Your task to perform on an android device: Go to CNN.com Image 0: 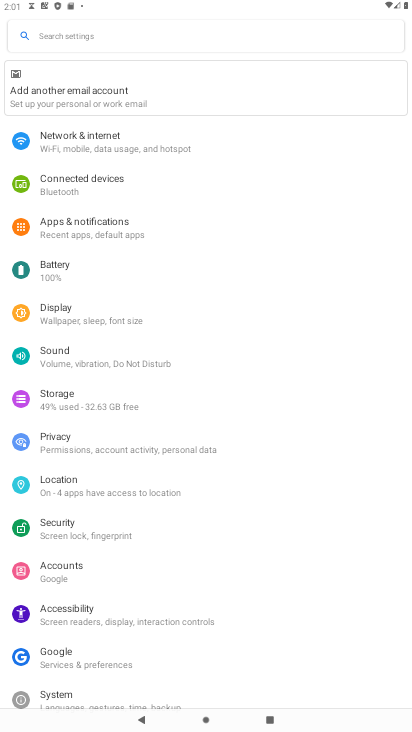
Step 0: press home button
Your task to perform on an android device: Go to CNN.com Image 1: 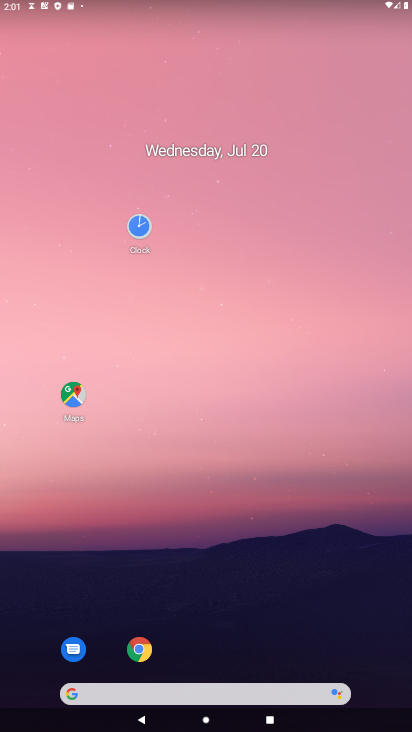
Step 1: click (130, 651)
Your task to perform on an android device: Go to CNN.com Image 2: 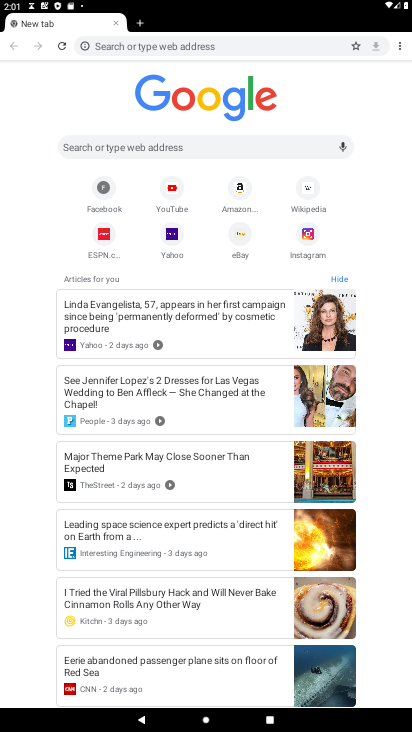
Step 2: click (159, 147)
Your task to perform on an android device: Go to CNN.com Image 3: 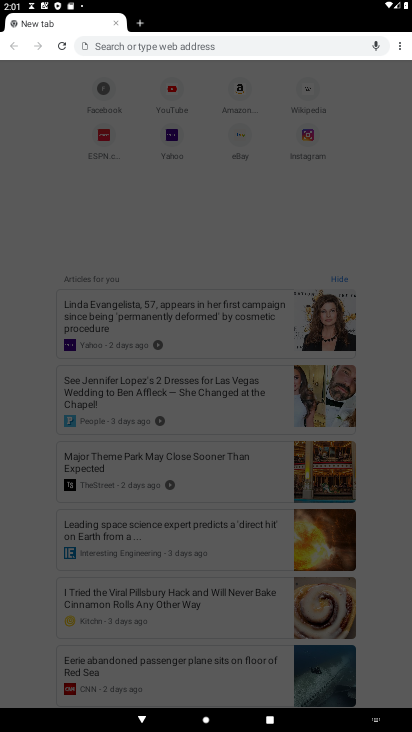
Step 3: type "cnn"
Your task to perform on an android device: Go to CNN.com Image 4: 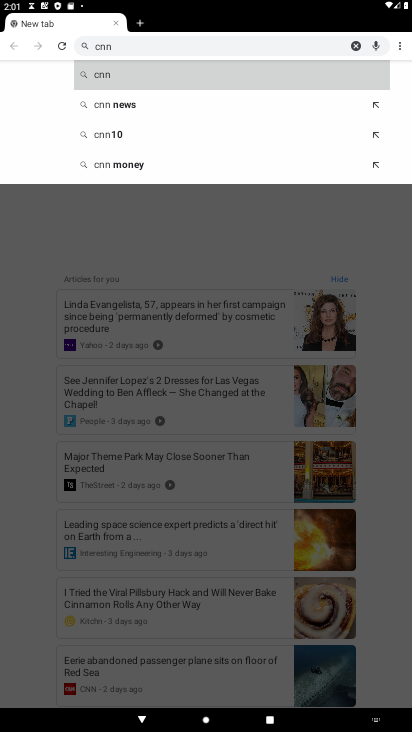
Step 4: click (123, 73)
Your task to perform on an android device: Go to CNN.com Image 5: 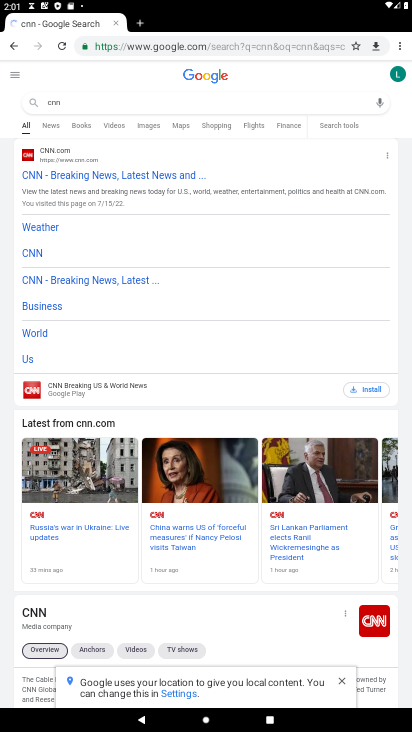
Step 5: click (69, 171)
Your task to perform on an android device: Go to CNN.com Image 6: 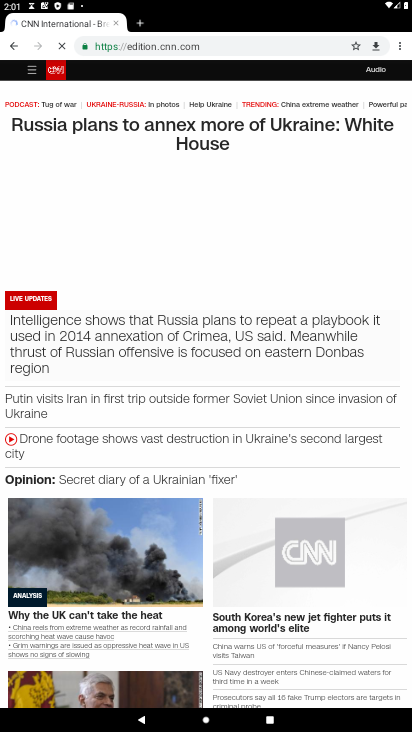
Step 6: task complete